Your task to perform on an android device: Search for pizza restaurants on Maps Image 0: 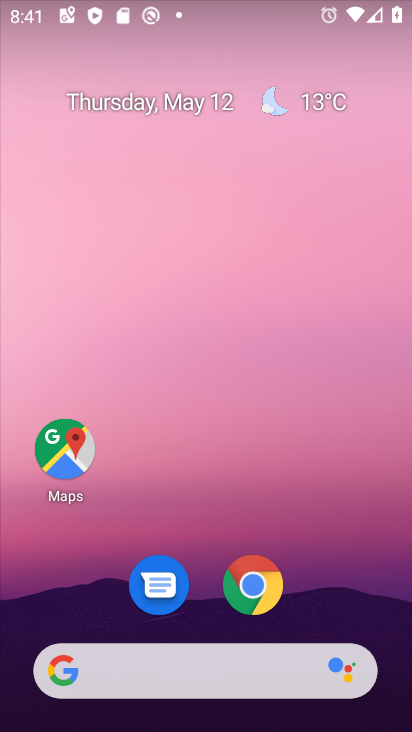
Step 0: click (54, 432)
Your task to perform on an android device: Search for pizza restaurants on Maps Image 1: 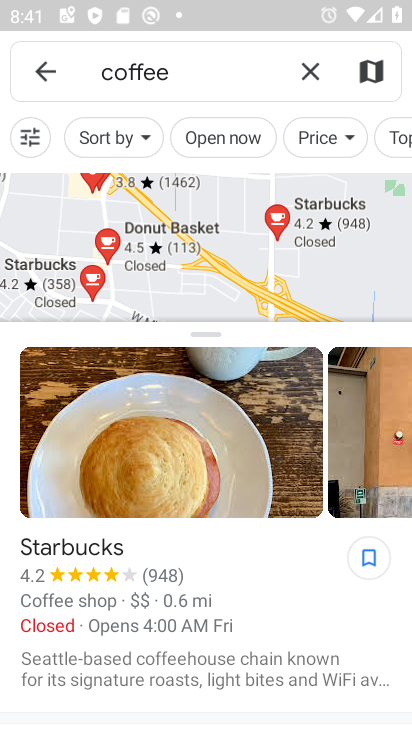
Step 1: click (312, 65)
Your task to perform on an android device: Search for pizza restaurants on Maps Image 2: 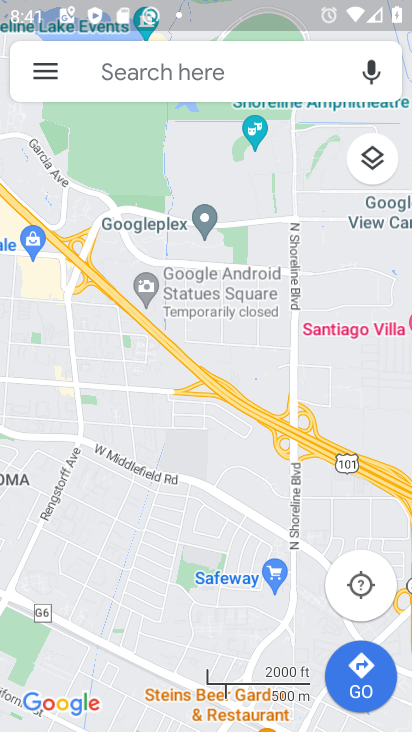
Step 2: click (208, 59)
Your task to perform on an android device: Search for pizza restaurants on Maps Image 3: 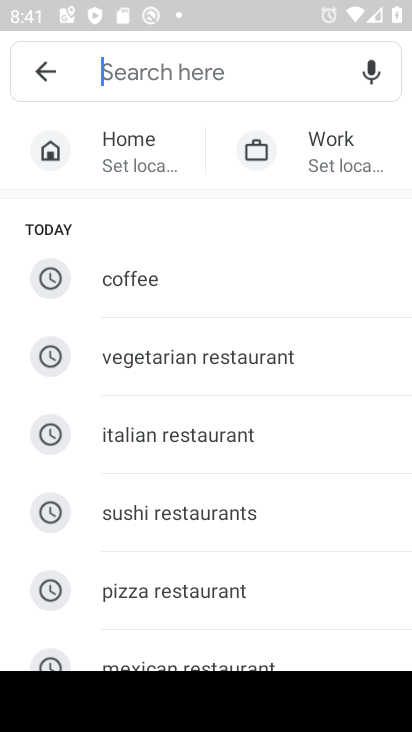
Step 3: click (155, 578)
Your task to perform on an android device: Search for pizza restaurants on Maps Image 4: 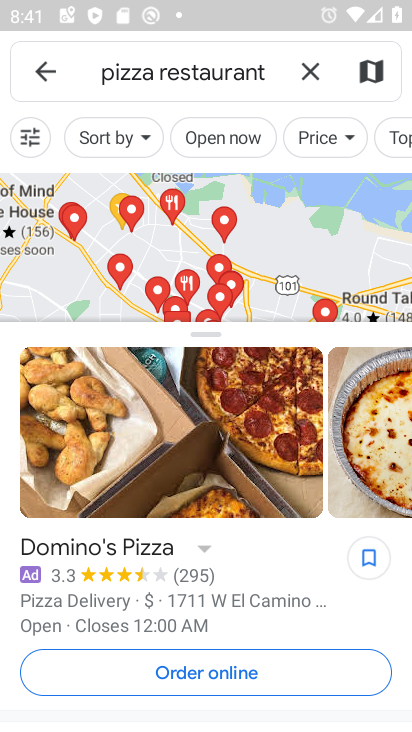
Step 4: task complete